Your task to perform on an android device: Open maps Image 0: 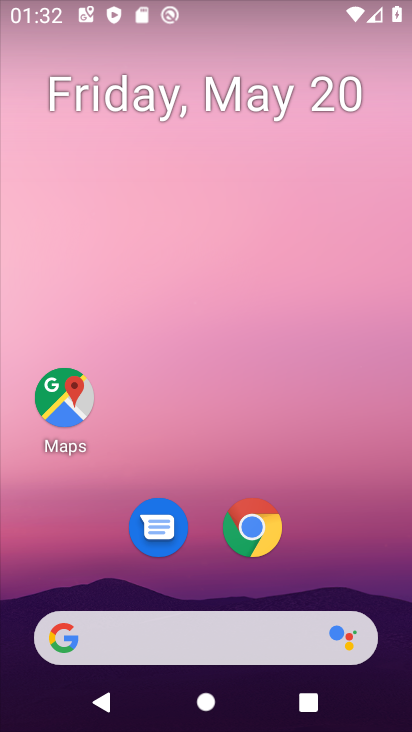
Step 0: press home button
Your task to perform on an android device: Open maps Image 1: 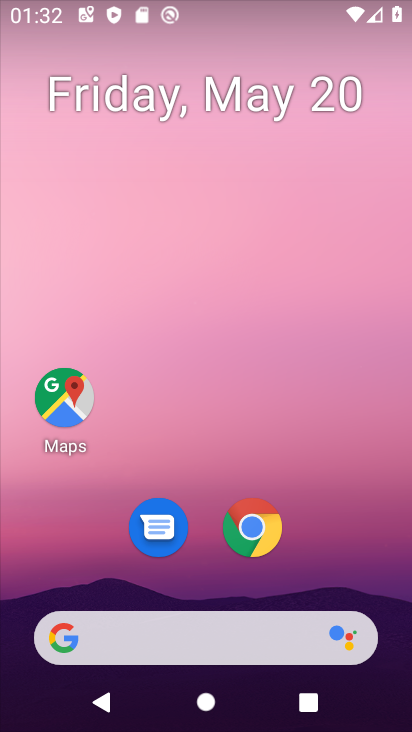
Step 1: click (74, 397)
Your task to perform on an android device: Open maps Image 2: 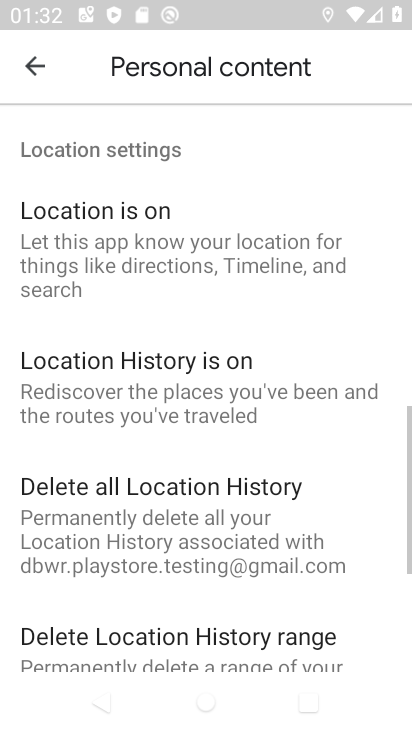
Step 2: click (42, 61)
Your task to perform on an android device: Open maps Image 3: 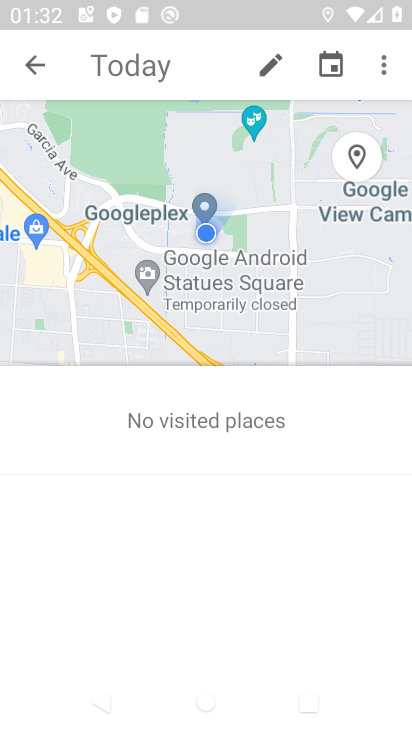
Step 3: task complete